Your task to perform on an android device: turn on data saver in the chrome app Image 0: 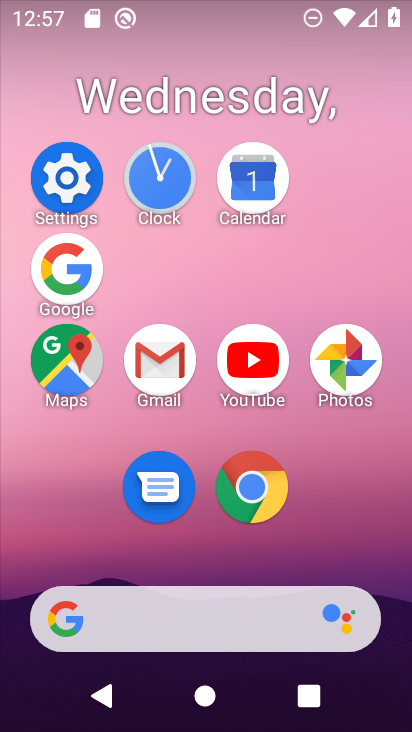
Step 0: click (239, 500)
Your task to perform on an android device: turn on data saver in the chrome app Image 1: 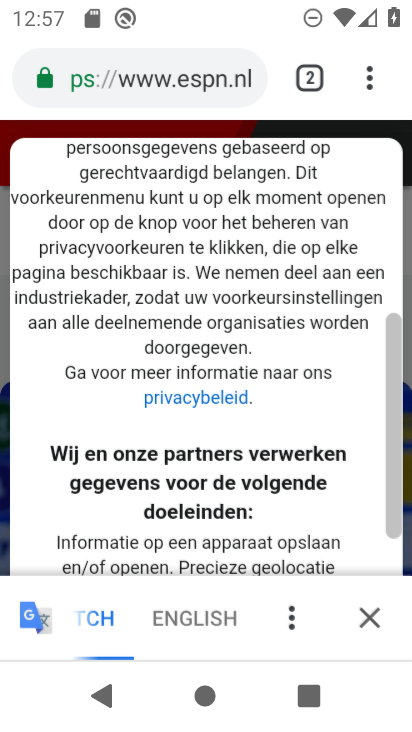
Step 1: click (384, 79)
Your task to perform on an android device: turn on data saver in the chrome app Image 2: 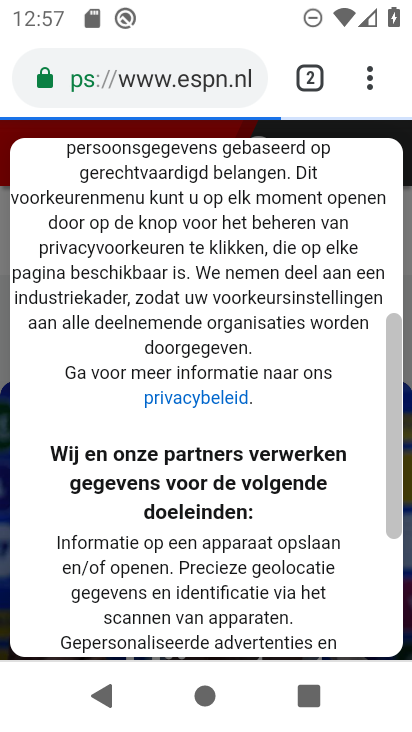
Step 2: click (370, 69)
Your task to perform on an android device: turn on data saver in the chrome app Image 3: 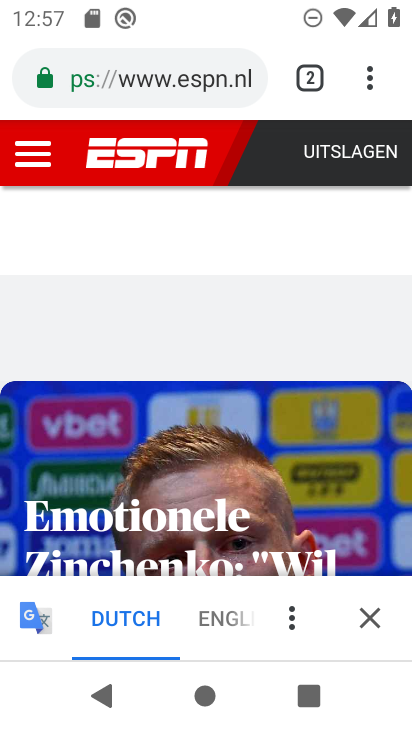
Step 3: click (382, 72)
Your task to perform on an android device: turn on data saver in the chrome app Image 4: 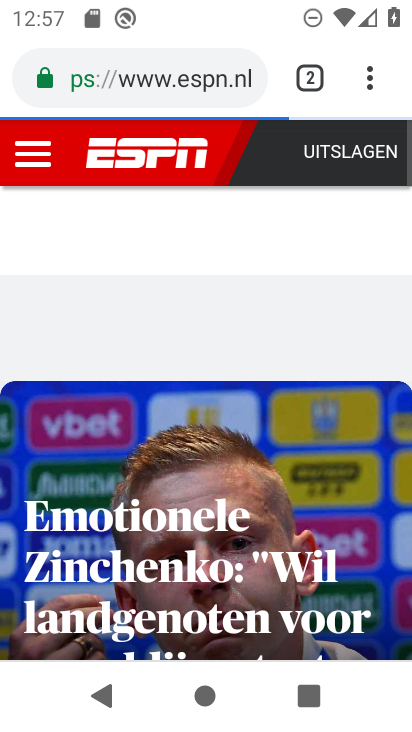
Step 4: click (368, 53)
Your task to perform on an android device: turn on data saver in the chrome app Image 5: 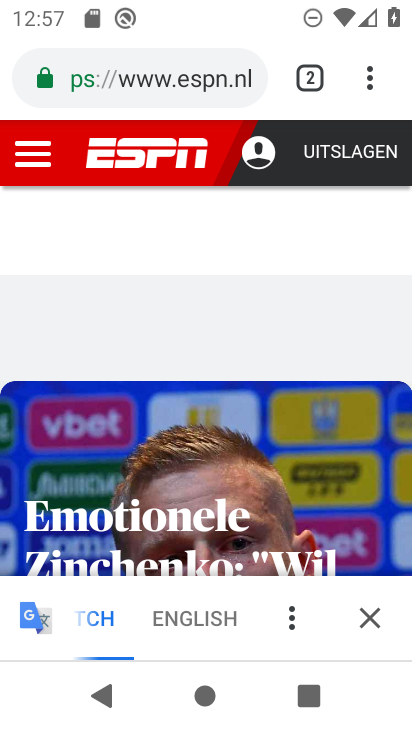
Step 5: click (384, 66)
Your task to perform on an android device: turn on data saver in the chrome app Image 6: 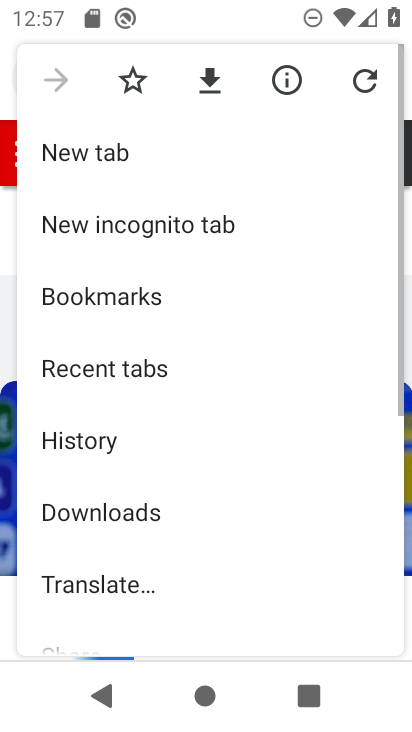
Step 6: drag from (192, 490) to (176, 166)
Your task to perform on an android device: turn on data saver in the chrome app Image 7: 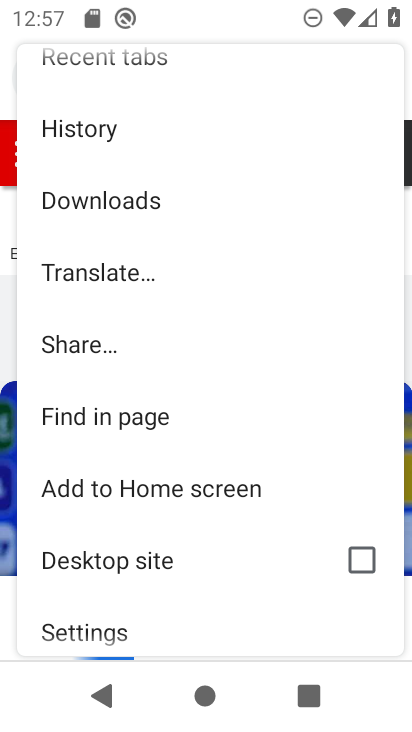
Step 7: drag from (198, 583) to (161, 188)
Your task to perform on an android device: turn on data saver in the chrome app Image 8: 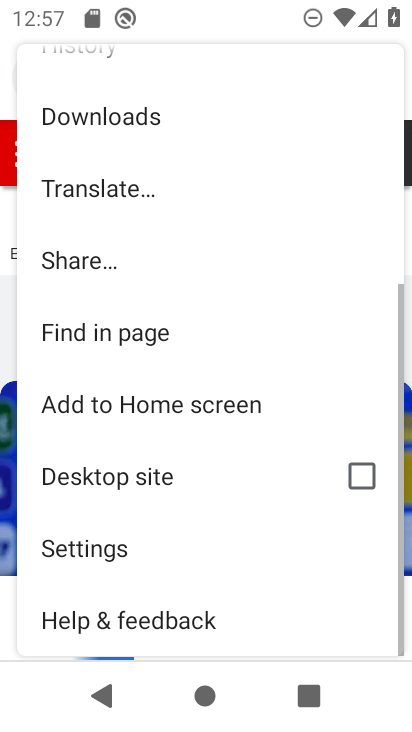
Step 8: click (149, 533)
Your task to perform on an android device: turn on data saver in the chrome app Image 9: 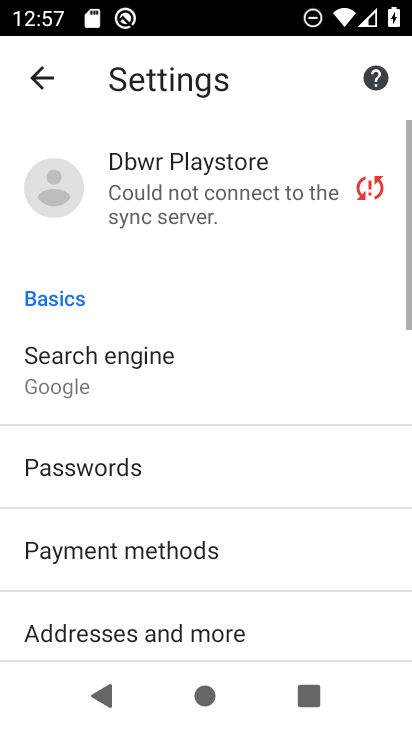
Step 9: drag from (149, 532) to (137, 125)
Your task to perform on an android device: turn on data saver in the chrome app Image 10: 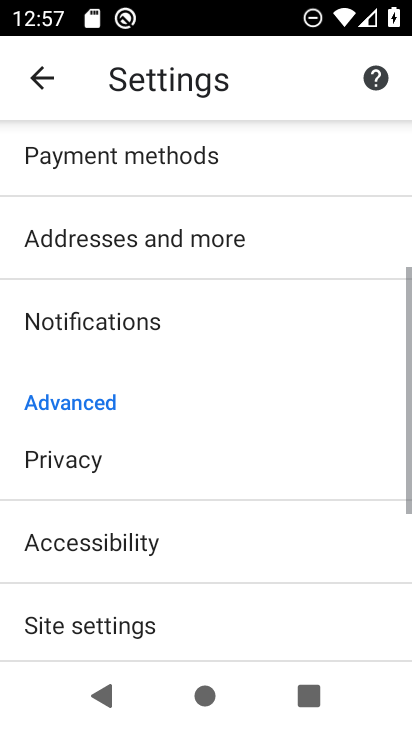
Step 10: drag from (156, 611) to (158, 162)
Your task to perform on an android device: turn on data saver in the chrome app Image 11: 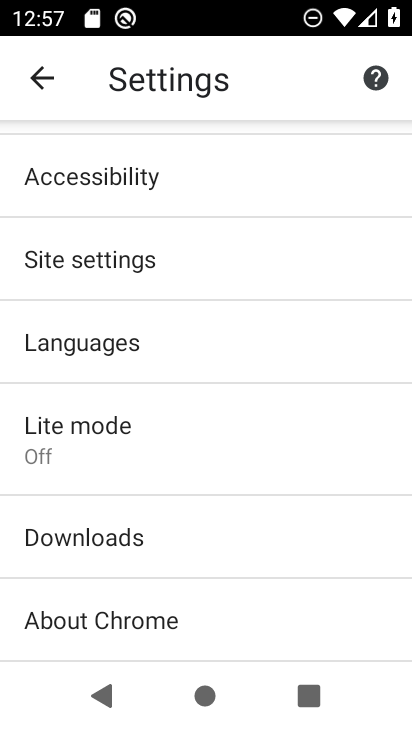
Step 11: click (122, 441)
Your task to perform on an android device: turn on data saver in the chrome app Image 12: 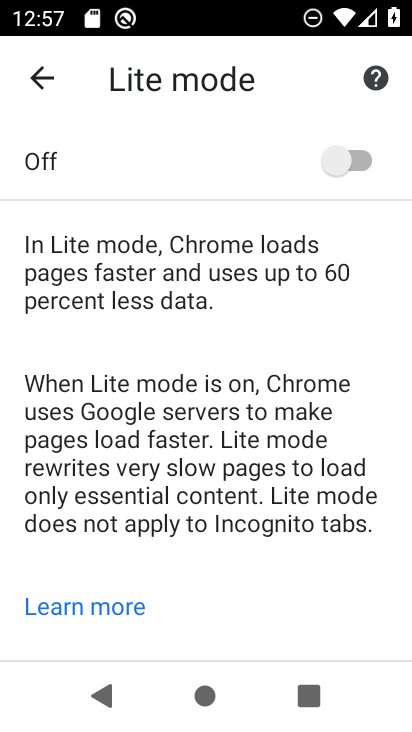
Step 12: click (340, 164)
Your task to perform on an android device: turn on data saver in the chrome app Image 13: 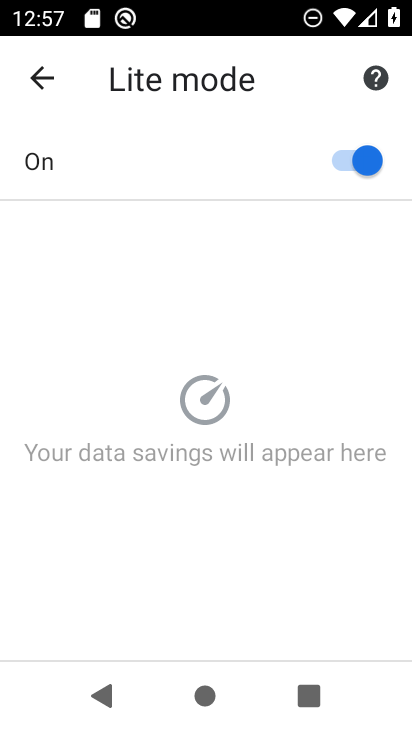
Step 13: task complete